Your task to perform on an android device: Search for the new lego star wars 2021 on Target Image 0: 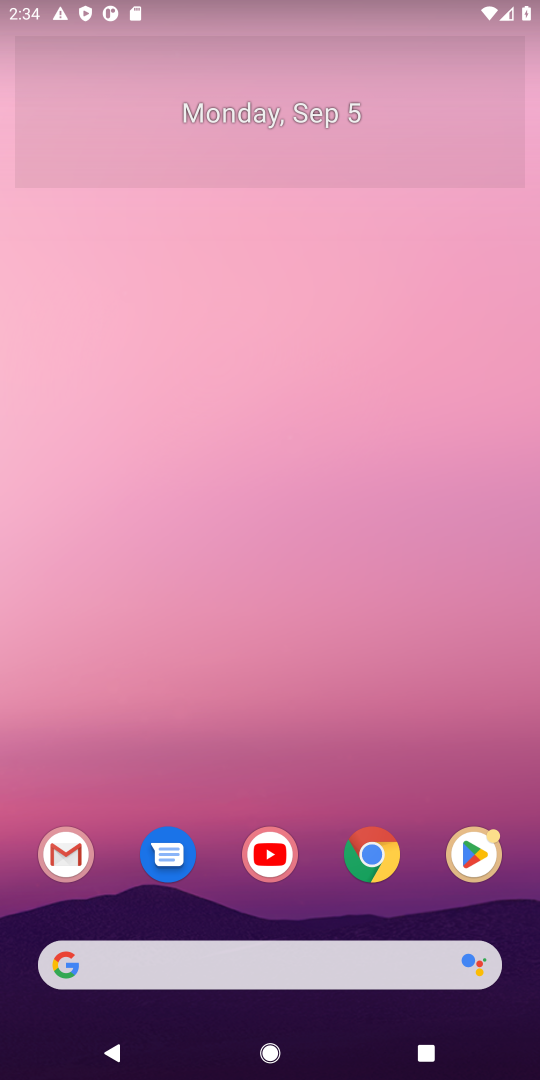
Step 0: click (315, 960)
Your task to perform on an android device: Search for the new lego star wars 2021 on Target Image 1: 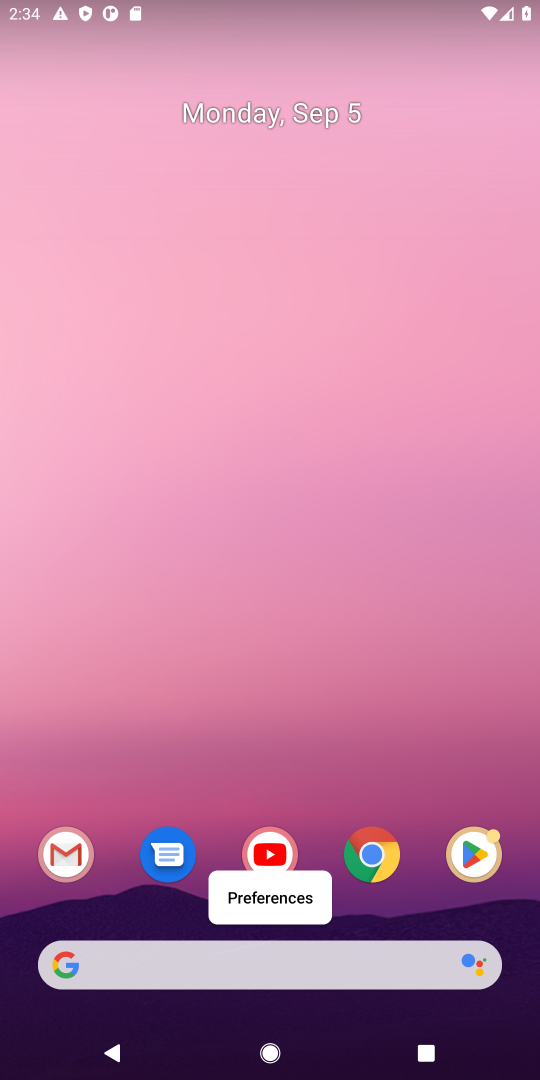
Step 1: click (201, 951)
Your task to perform on an android device: Search for the new lego star wars 2021 on Target Image 2: 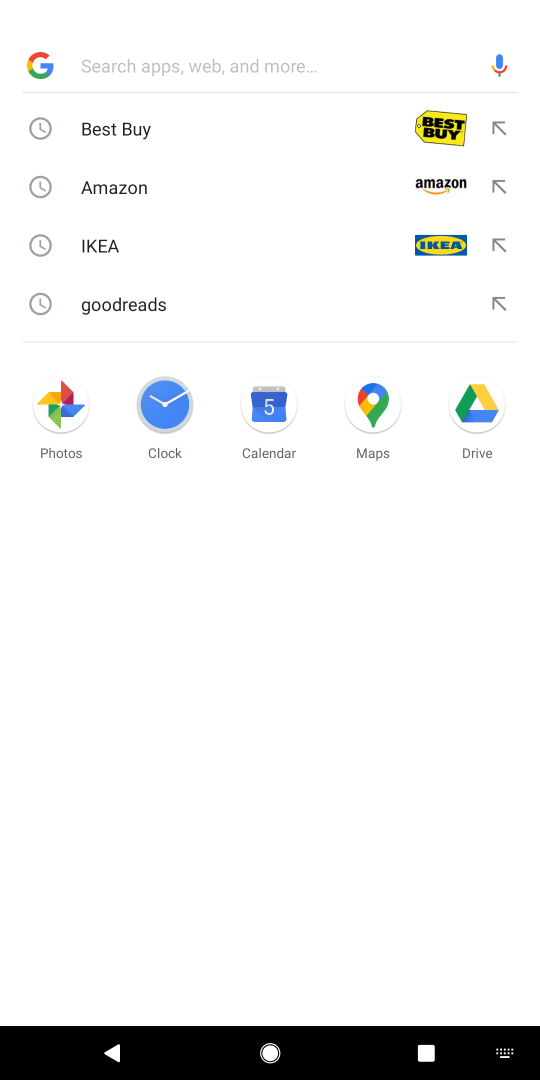
Step 2: press enter
Your task to perform on an android device: Search for the new lego star wars 2021 on Target Image 3: 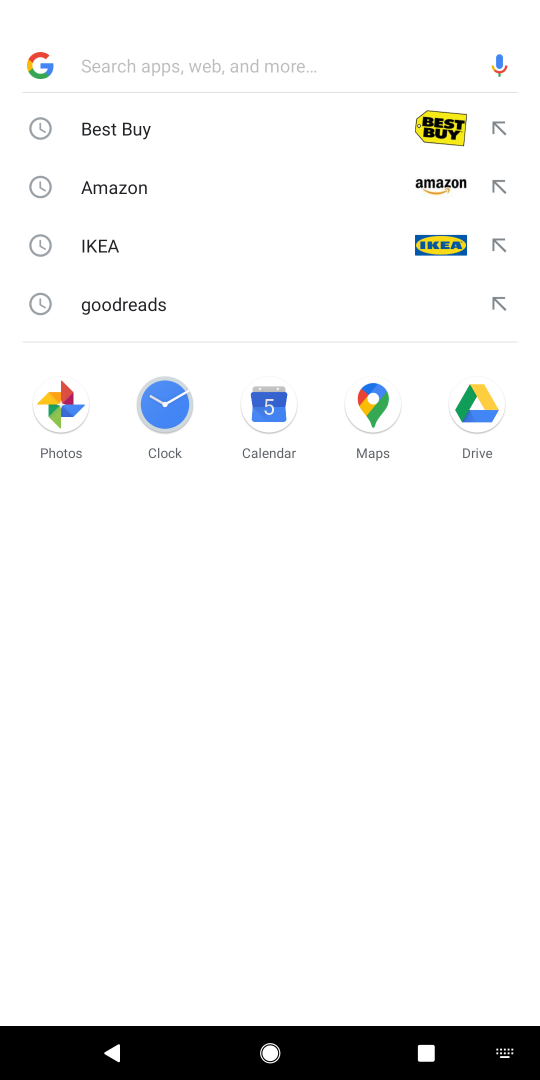
Step 3: type "target"
Your task to perform on an android device: Search for the new lego star wars 2021 on Target Image 4: 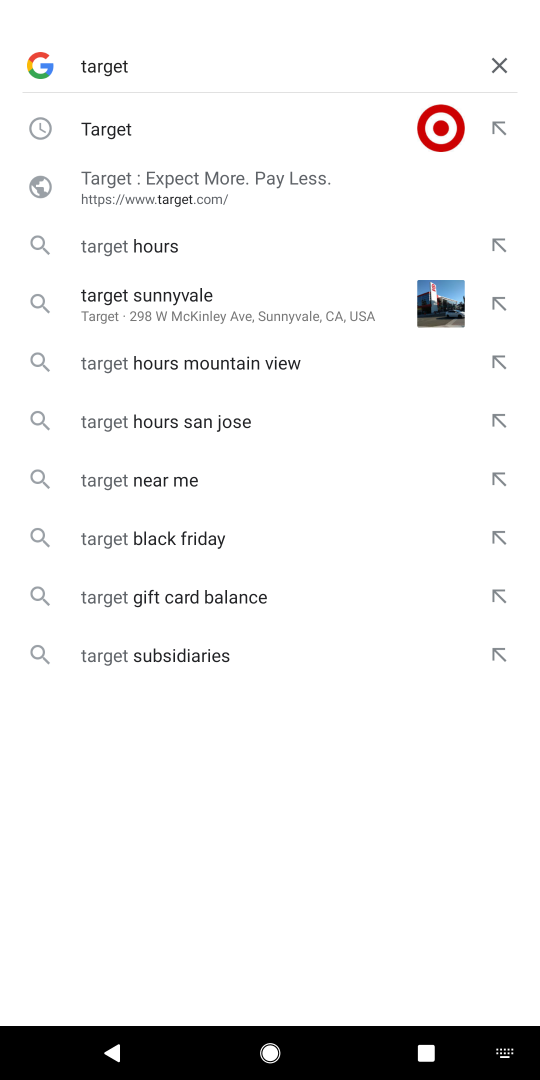
Step 4: click (140, 129)
Your task to perform on an android device: Search for the new lego star wars 2021 on Target Image 5: 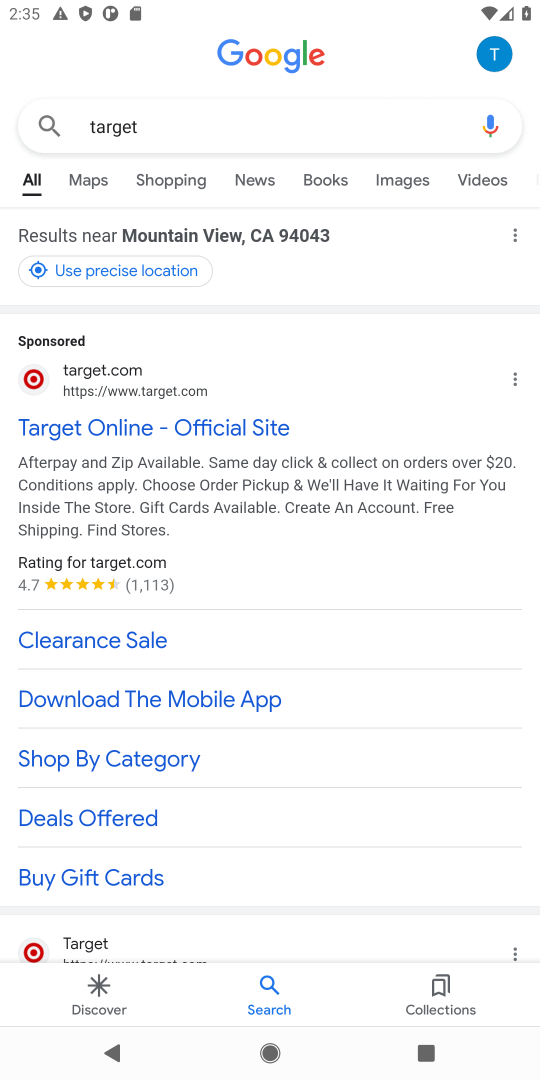
Step 5: click (183, 418)
Your task to perform on an android device: Search for the new lego star wars 2021 on Target Image 6: 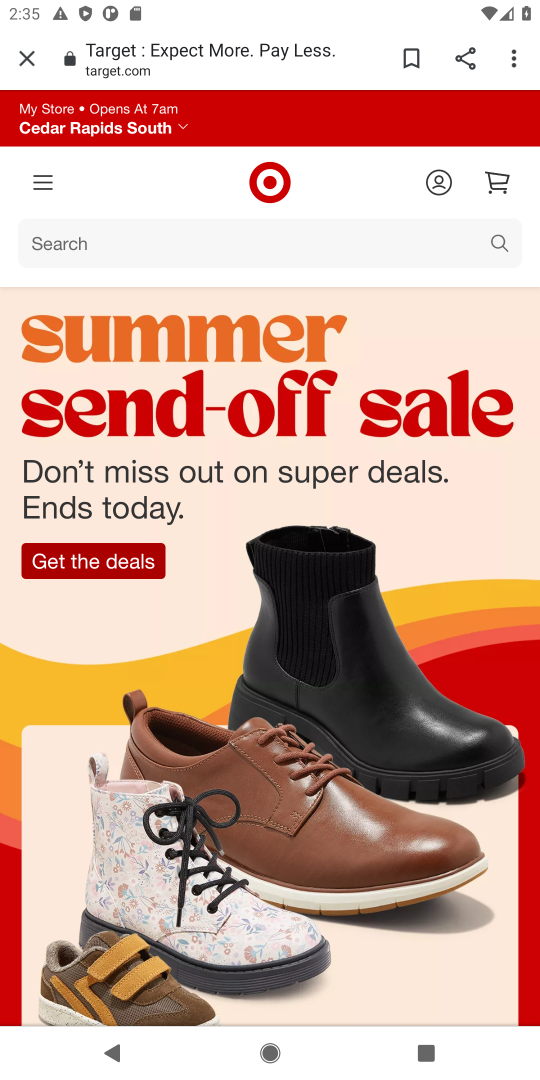
Step 6: click (167, 222)
Your task to perform on an android device: Search for the new lego star wars 2021 on Target Image 7: 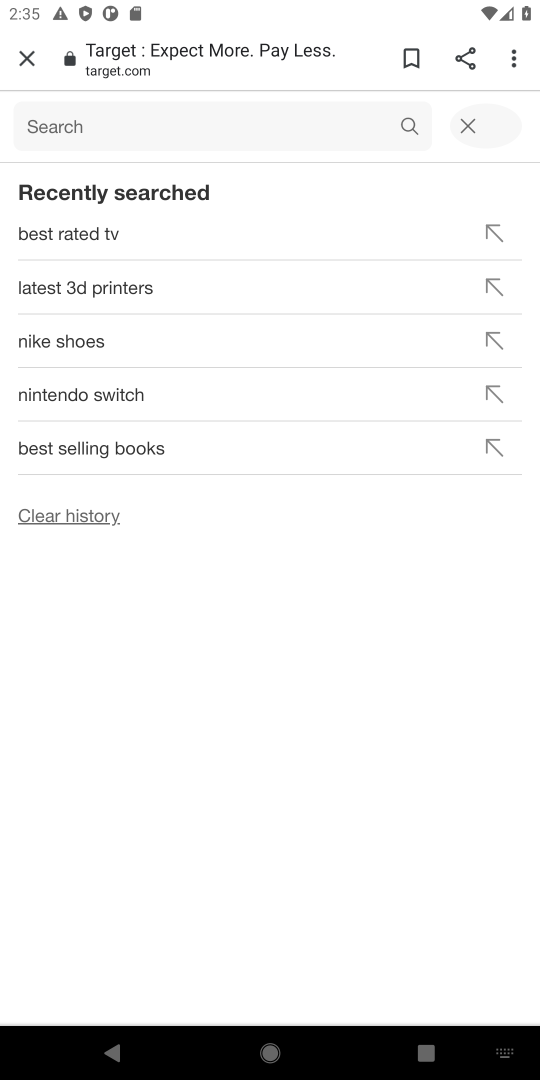
Step 7: type "new lego star wars 2021"
Your task to perform on an android device: Search for the new lego star wars 2021 on Target Image 8: 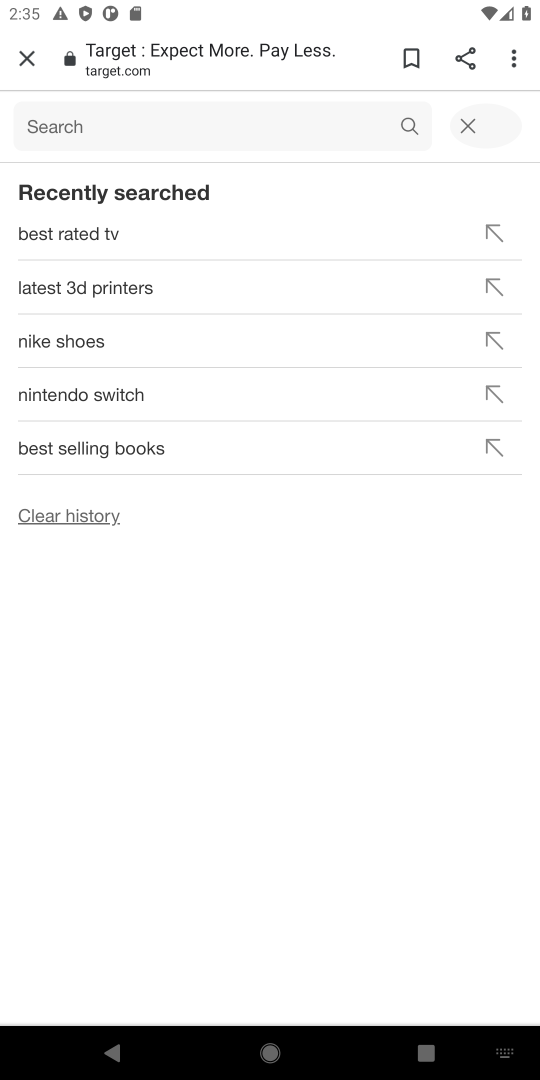
Step 8: press enter
Your task to perform on an android device: Search for the new lego star wars 2021 on Target Image 9: 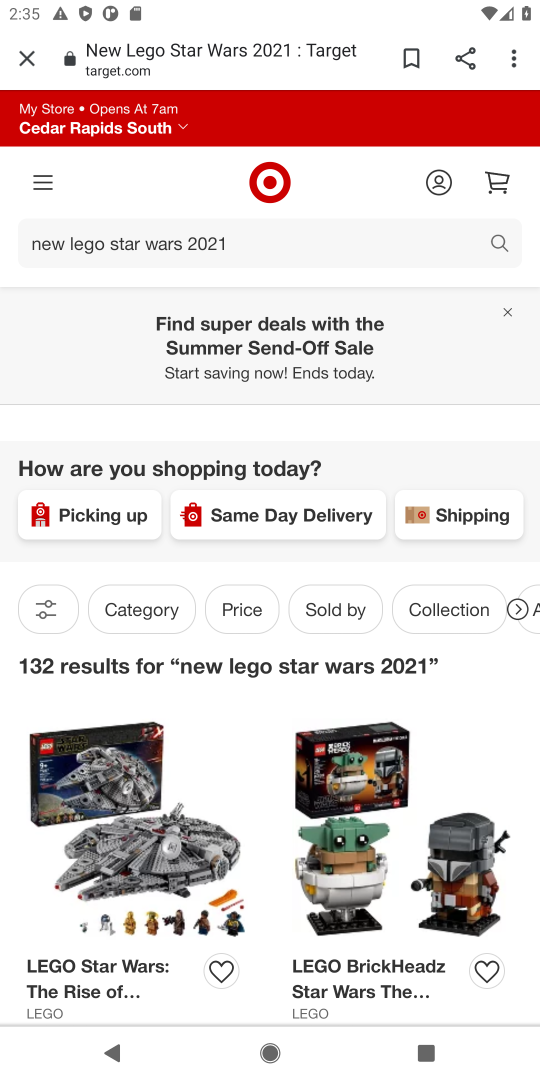
Step 9: task complete